Your task to perform on an android device: change the clock style Image 0: 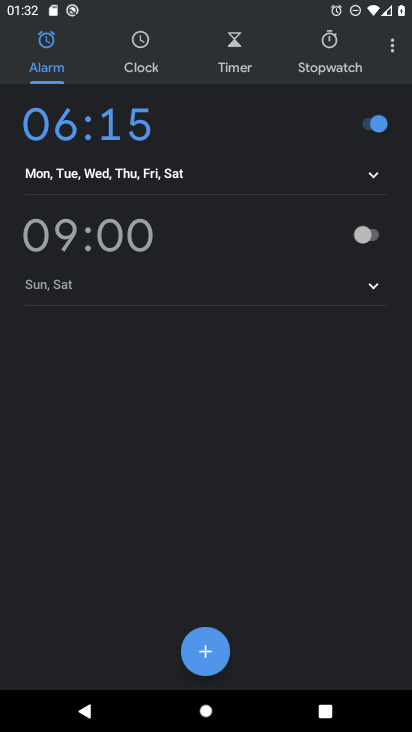
Step 0: click (389, 52)
Your task to perform on an android device: change the clock style Image 1: 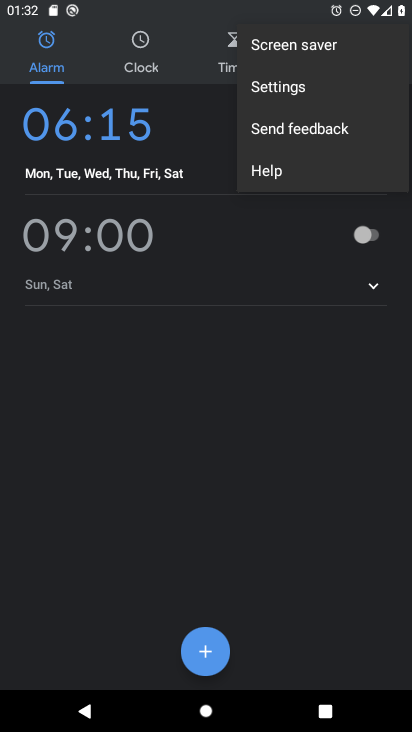
Step 1: click (263, 90)
Your task to perform on an android device: change the clock style Image 2: 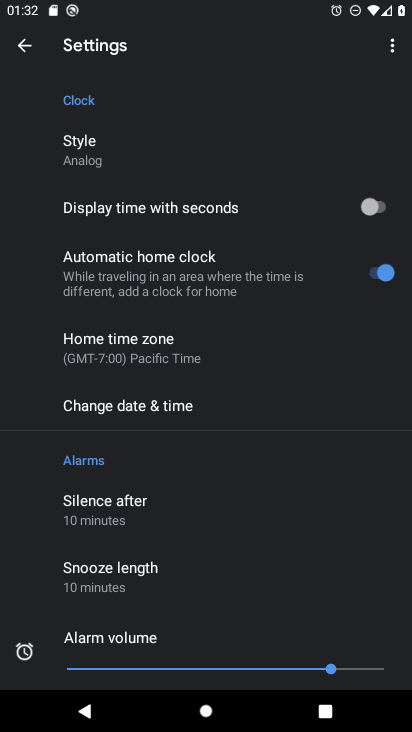
Step 2: click (87, 153)
Your task to perform on an android device: change the clock style Image 3: 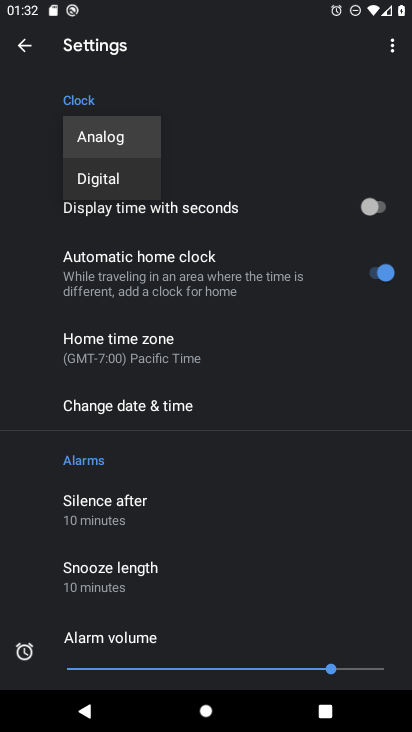
Step 3: click (101, 181)
Your task to perform on an android device: change the clock style Image 4: 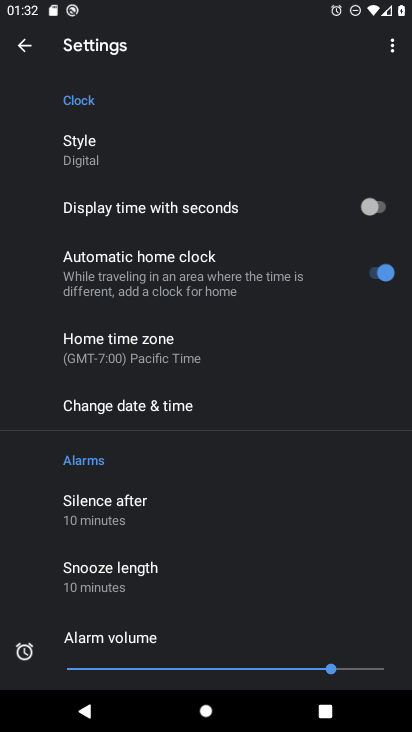
Step 4: task complete